Your task to perform on an android device: Open Wikipedia Image 0: 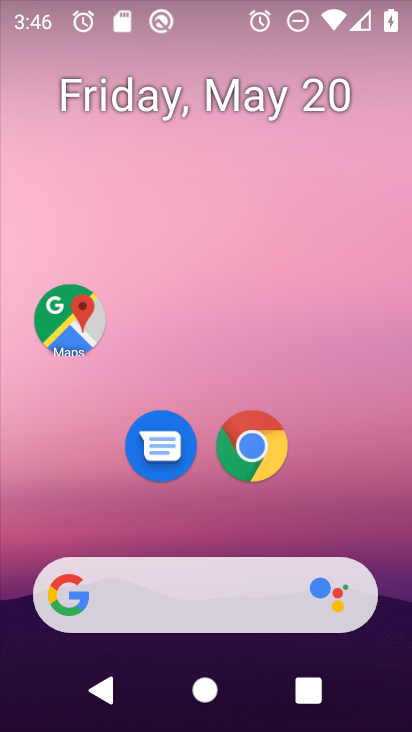
Step 0: click (252, 454)
Your task to perform on an android device: Open Wikipedia Image 1: 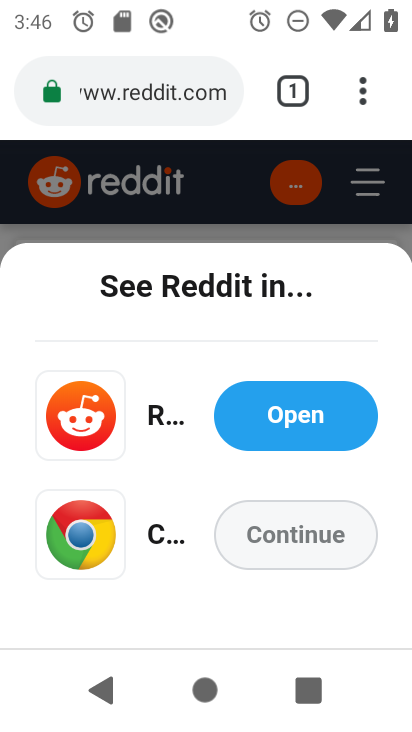
Step 1: click (102, 96)
Your task to perform on an android device: Open Wikipedia Image 2: 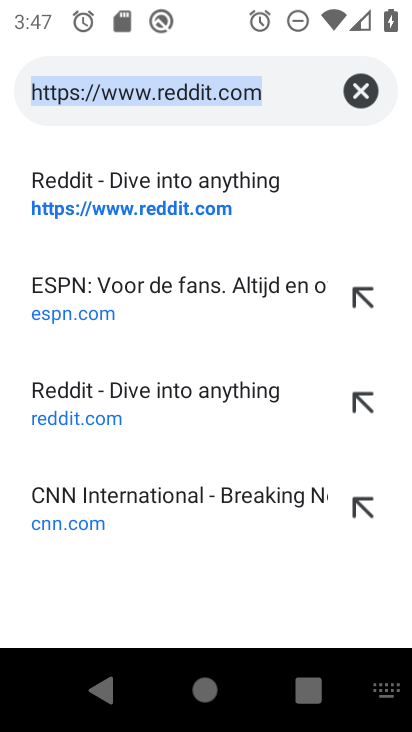
Step 2: click (358, 91)
Your task to perform on an android device: Open Wikipedia Image 3: 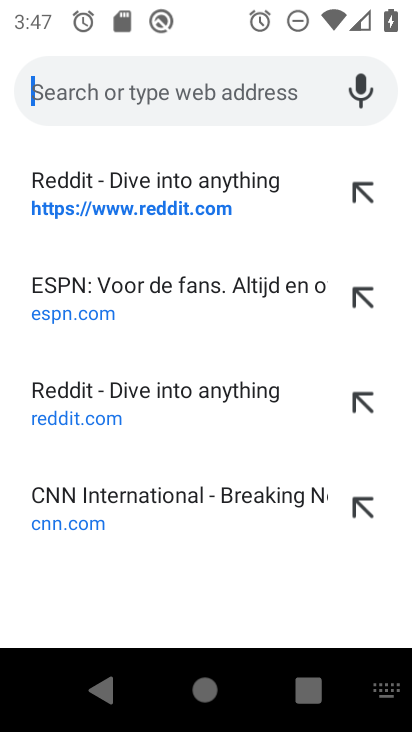
Step 3: type "wikipedia"
Your task to perform on an android device: Open Wikipedia Image 4: 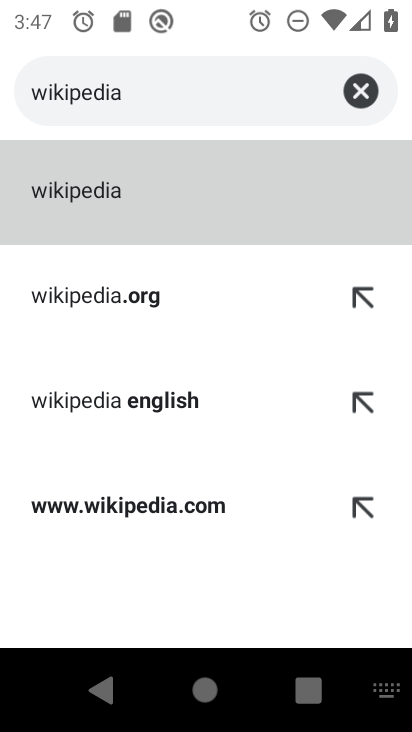
Step 4: click (77, 294)
Your task to perform on an android device: Open Wikipedia Image 5: 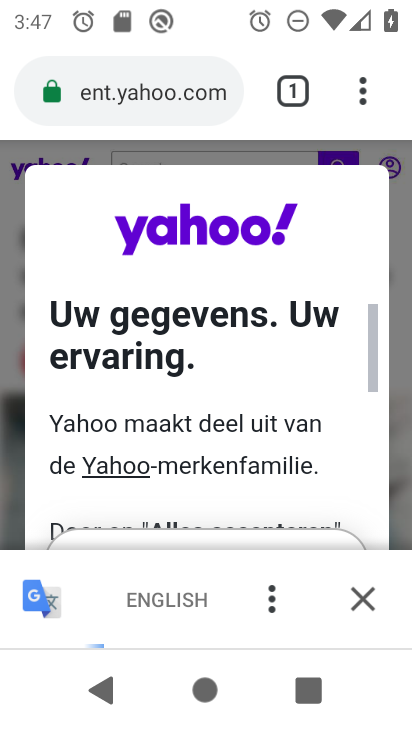
Step 5: click (144, 77)
Your task to perform on an android device: Open Wikipedia Image 6: 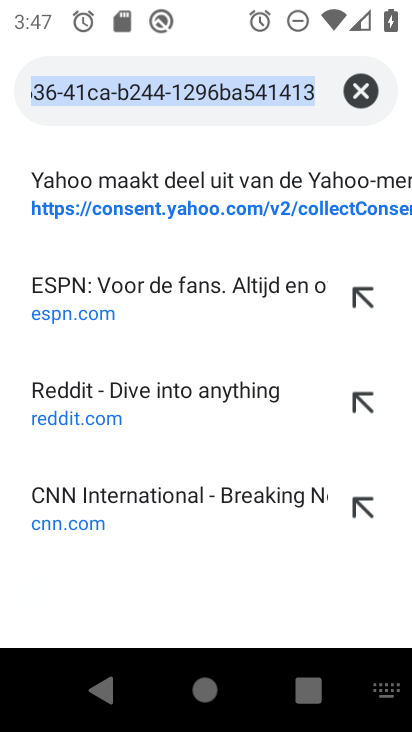
Step 6: click (367, 96)
Your task to perform on an android device: Open Wikipedia Image 7: 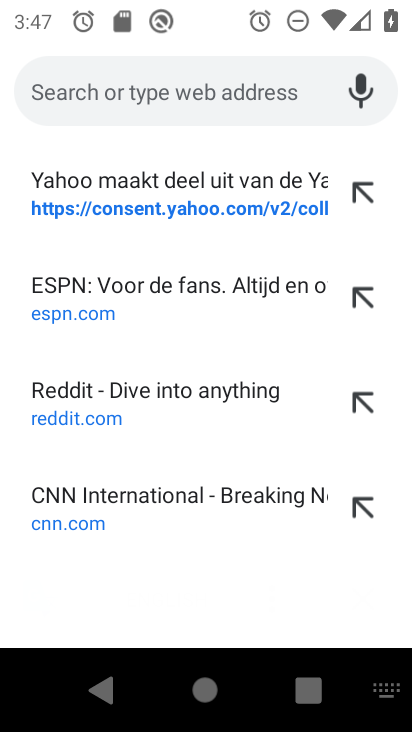
Step 7: type "wikipedia"
Your task to perform on an android device: Open Wikipedia Image 8: 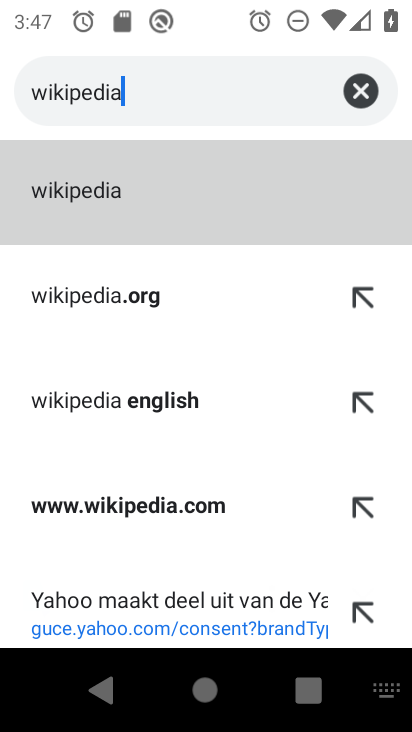
Step 8: click (67, 203)
Your task to perform on an android device: Open Wikipedia Image 9: 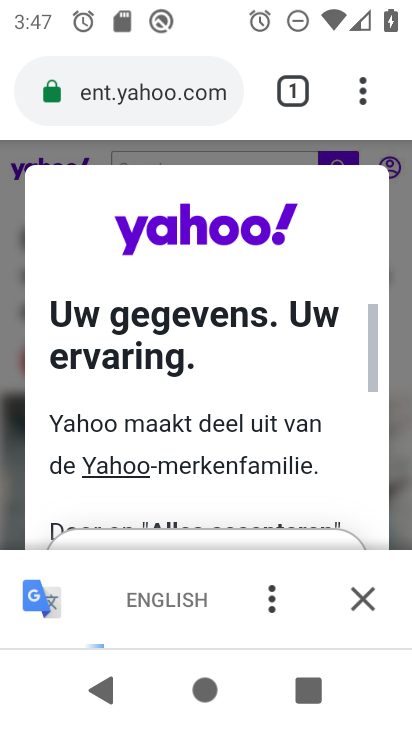
Step 9: task complete